Your task to perform on an android device: turn on location history Image 0: 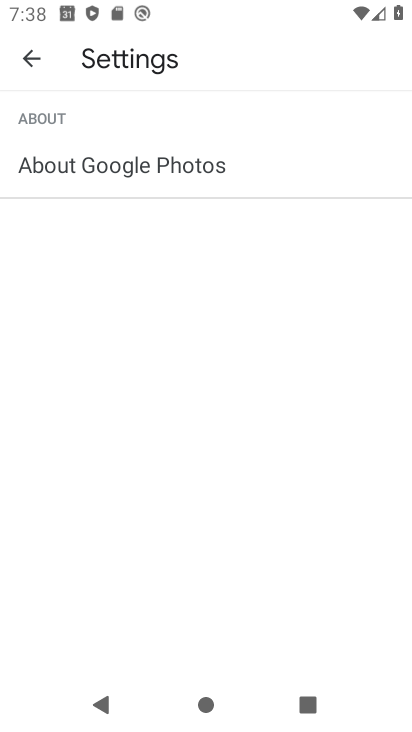
Step 0: press home button
Your task to perform on an android device: turn on location history Image 1: 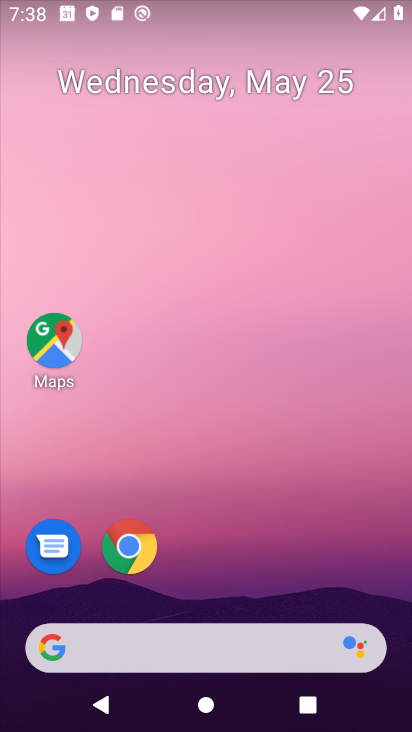
Step 1: drag from (381, 582) to (388, 222)
Your task to perform on an android device: turn on location history Image 2: 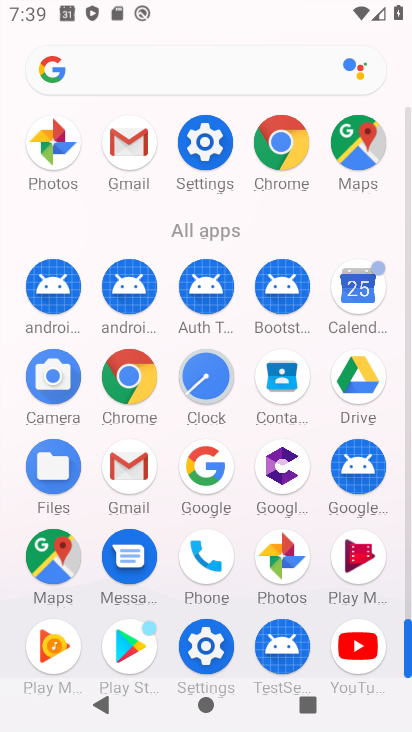
Step 2: click (209, 646)
Your task to perform on an android device: turn on location history Image 3: 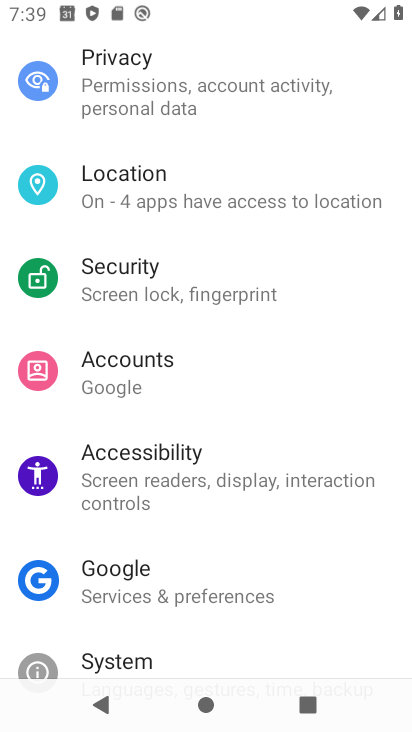
Step 3: drag from (379, 639) to (377, 540)
Your task to perform on an android device: turn on location history Image 4: 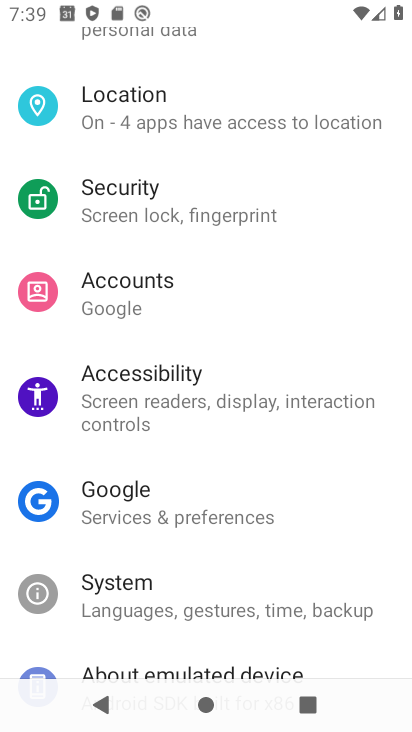
Step 4: drag from (378, 635) to (382, 533)
Your task to perform on an android device: turn on location history Image 5: 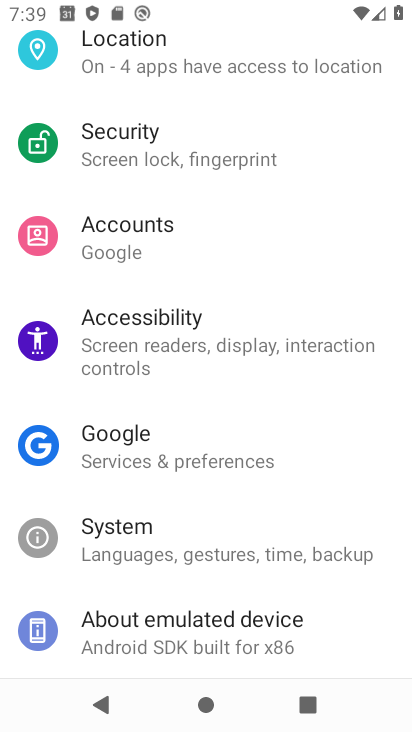
Step 5: drag from (370, 450) to (380, 530)
Your task to perform on an android device: turn on location history Image 6: 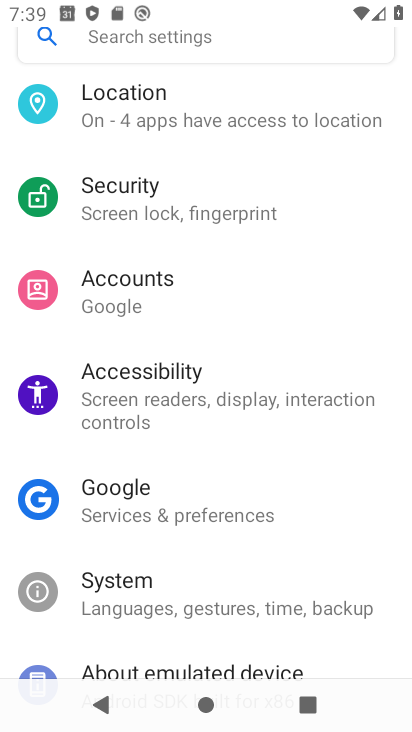
Step 6: drag from (384, 441) to (379, 506)
Your task to perform on an android device: turn on location history Image 7: 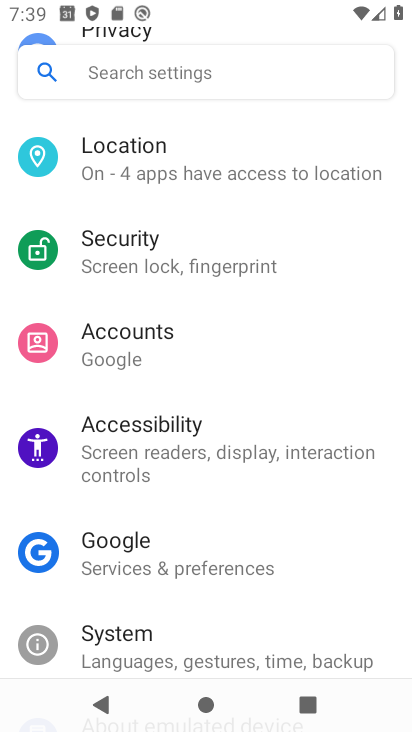
Step 7: drag from (384, 394) to (394, 465)
Your task to perform on an android device: turn on location history Image 8: 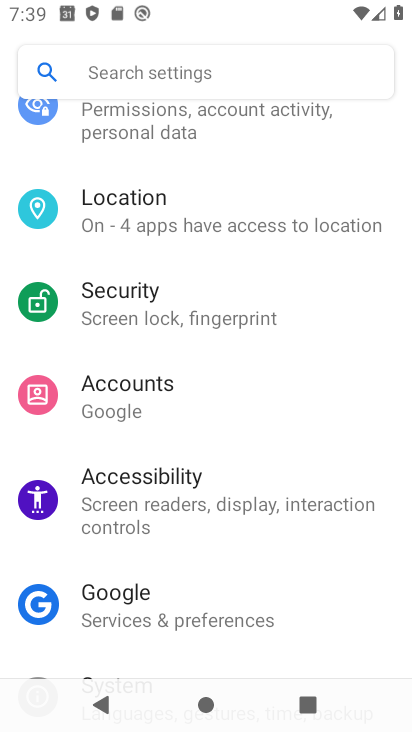
Step 8: drag from (368, 412) to (368, 473)
Your task to perform on an android device: turn on location history Image 9: 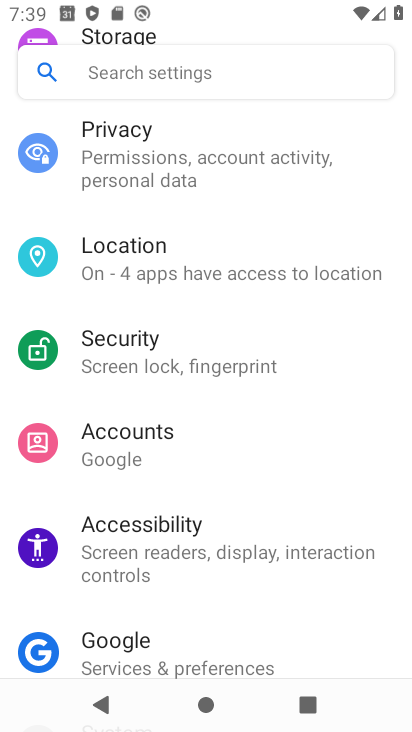
Step 9: drag from (375, 373) to (368, 449)
Your task to perform on an android device: turn on location history Image 10: 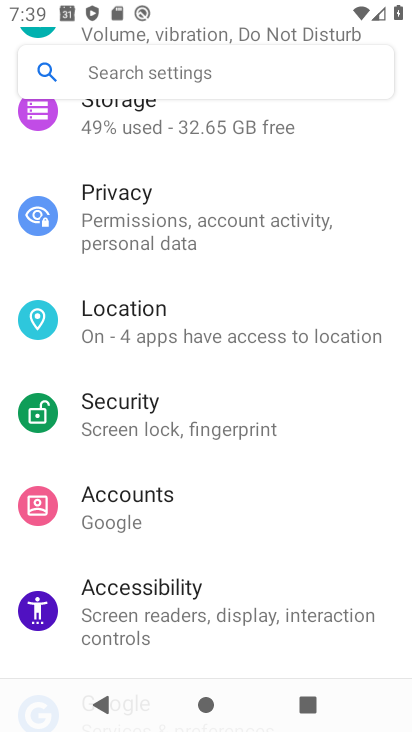
Step 10: drag from (366, 377) to (360, 450)
Your task to perform on an android device: turn on location history Image 11: 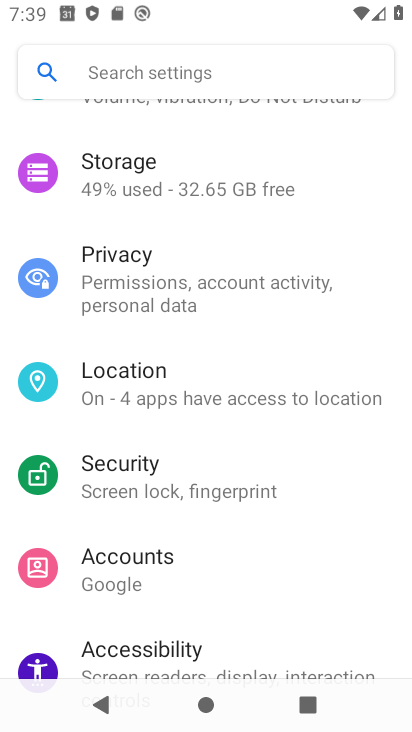
Step 11: drag from (377, 349) to (372, 456)
Your task to perform on an android device: turn on location history Image 12: 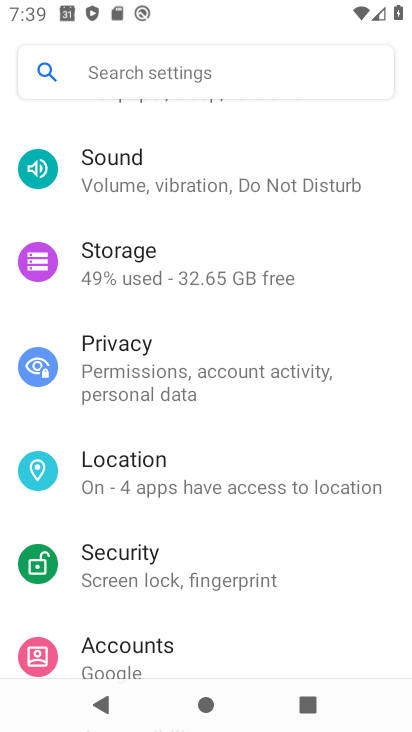
Step 12: click (324, 483)
Your task to perform on an android device: turn on location history Image 13: 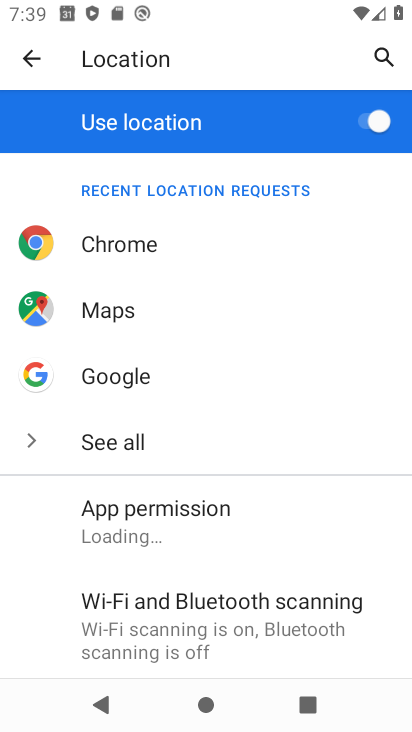
Step 13: drag from (335, 547) to (354, 444)
Your task to perform on an android device: turn on location history Image 14: 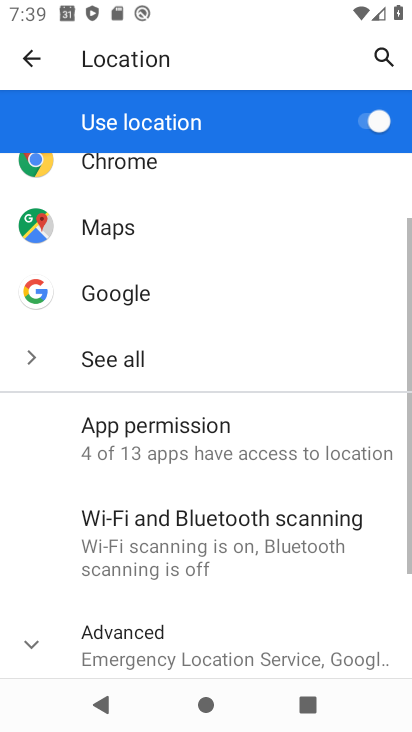
Step 14: drag from (355, 570) to (352, 294)
Your task to perform on an android device: turn on location history Image 15: 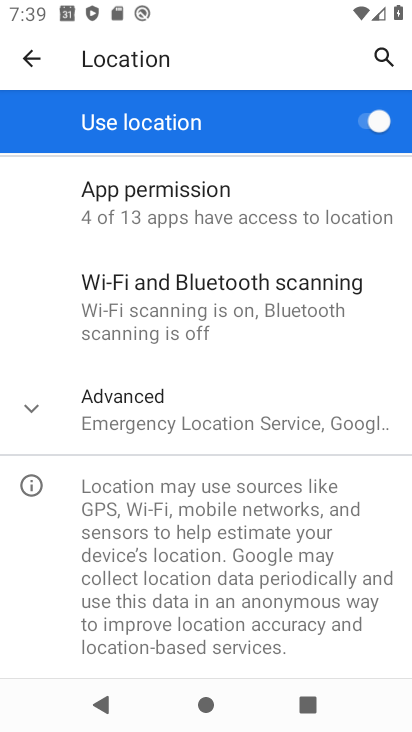
Step 15: click (337, 419)
Your task to perform on an android device: turn on location history Image 16: 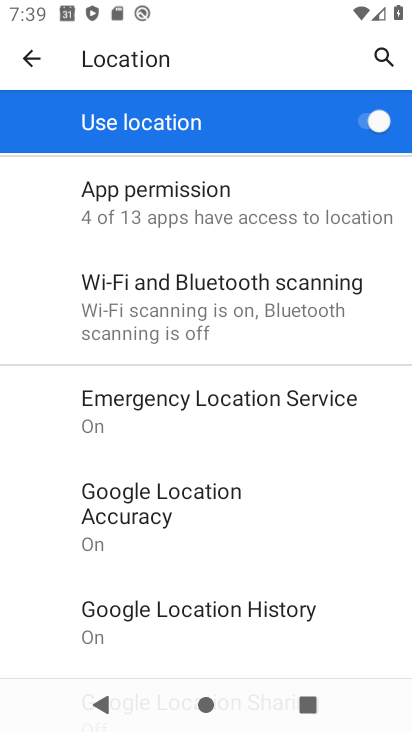
Step 16: task complete